Your task to perform on an android device: delete a single message in the gmail app Image 0: 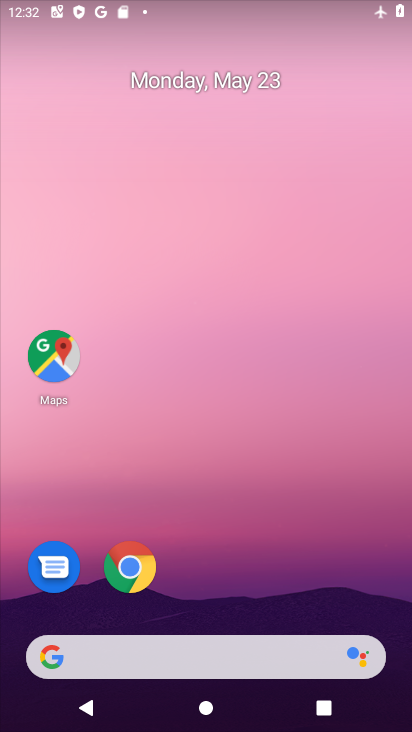
Step 0: drag from (229, 370) to (246, 65)
Your task to perform on an android device: delete a single message in the gmail app Image 1: 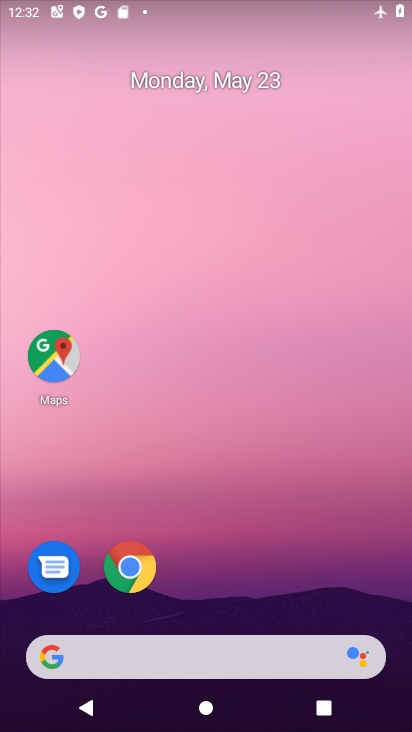
Step 1: drag from (233, 617) to (227, 83)
Your task to perform on an android device: delete a single message in the gmail app Image 2: 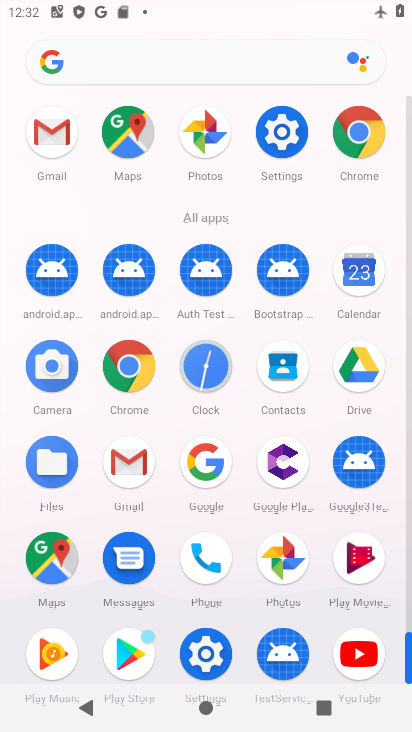
Step 2: click (47, 145)
Your task to perform on an android device: delete a single message in the gmail app Image 3: 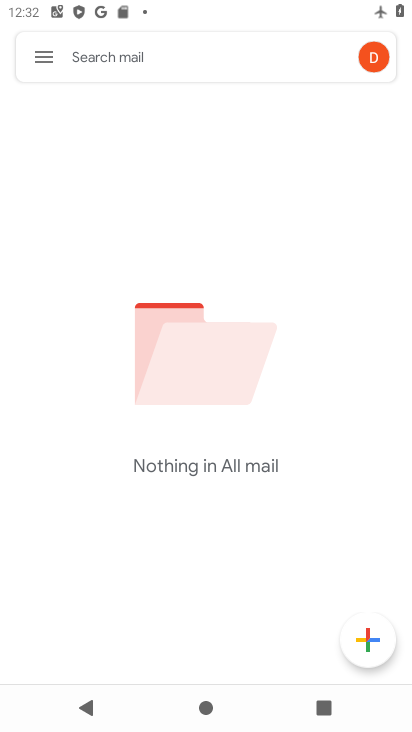
Step 3: task complete